Your task to perform on an android device: Go to privacy settings Image 0: 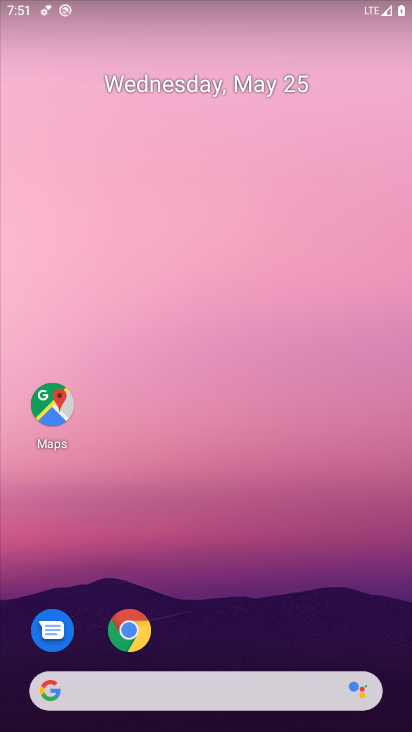
Step 0: drag from (189, 671) to (191, 292)
Your task to perform on an android device: Go to privacy settings Image 1: 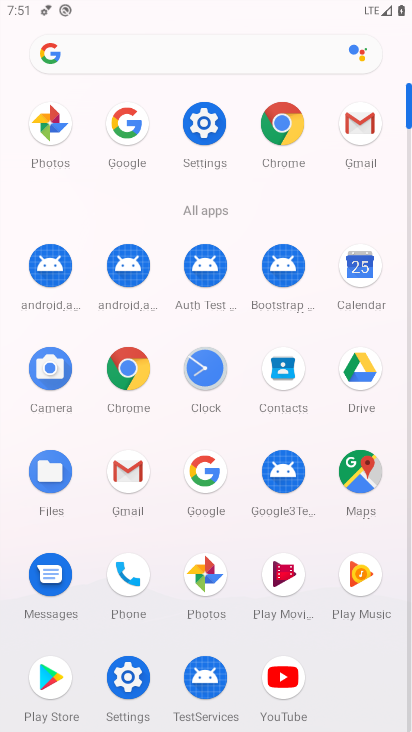
Step 1: click (195, 121)
Your task to perform on an android device: Go to privacy settings Image 2: 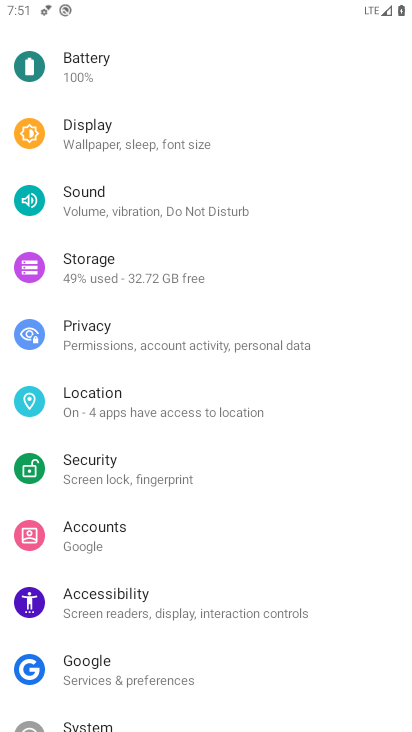
Step 2: click (116, 331)
Your task to perform on an android device: Go to privacy settings Image 3: 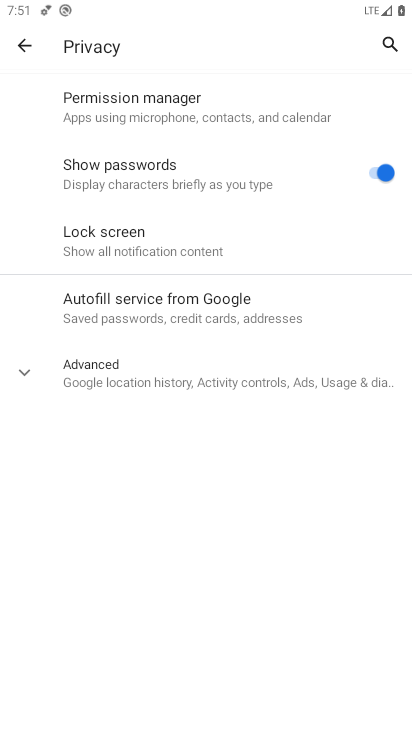
Step 3: click (155, 370)
Your task to perform on an android device: Go to privacy settings Image 4: 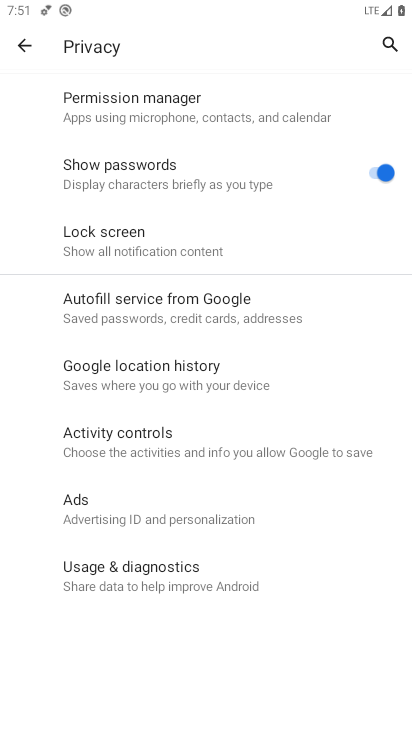
Step 4: task complete